Your task to perform on an android device: Do I have any events this weekend? Image 0: 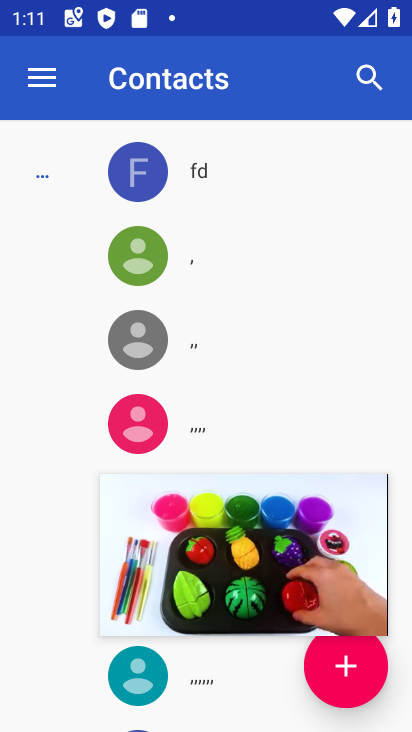
Step 0: drag from (303, 567) to (261, 704)
Your task to perform on an android device: Do I have any events this weekend? Image 1: 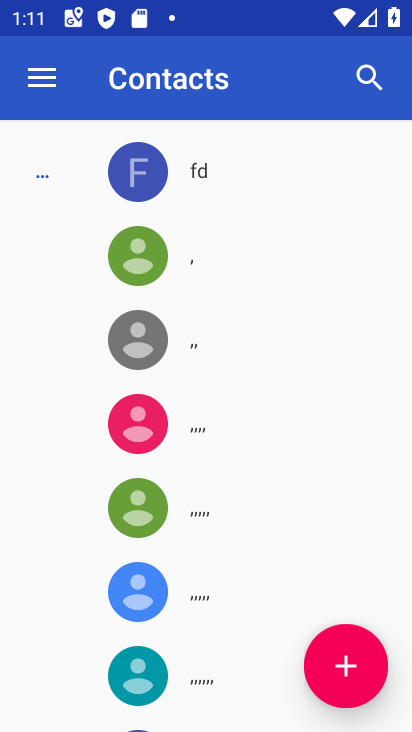
Step 1: press home button
Your task to perform on an android device: Do I have any events this weekend? Image 2: 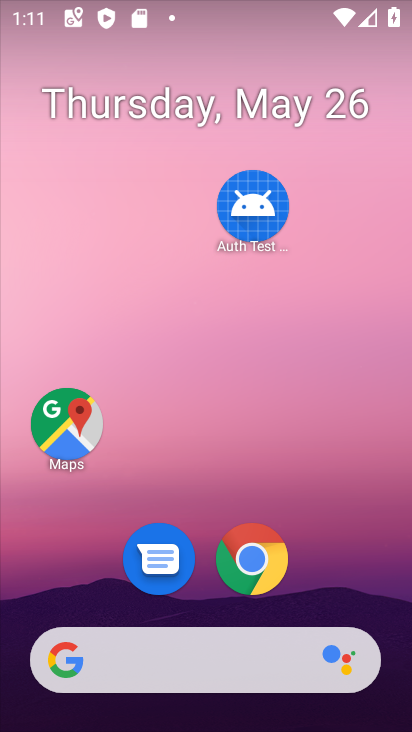
Step 2: drag from (328, 535) to (324, 145)
Your task to perform on an android device: Do I have any events this weekend? Image 3: 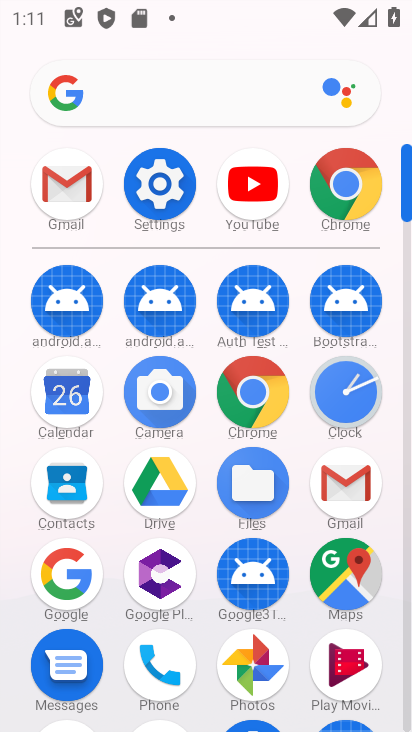
Step 3: click (75, 388)
Your task to perform on an android device: Do I have any events this weekend? Image 4: 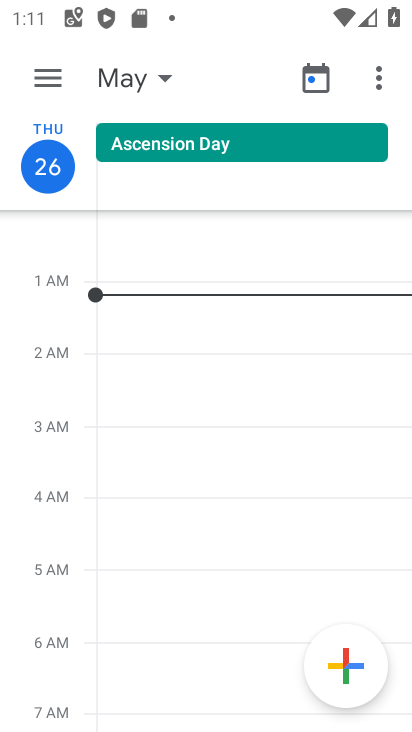
Step 4: click (58, 78)
Your task to perform on an android device: Do I have any events this weekend? Image 5: 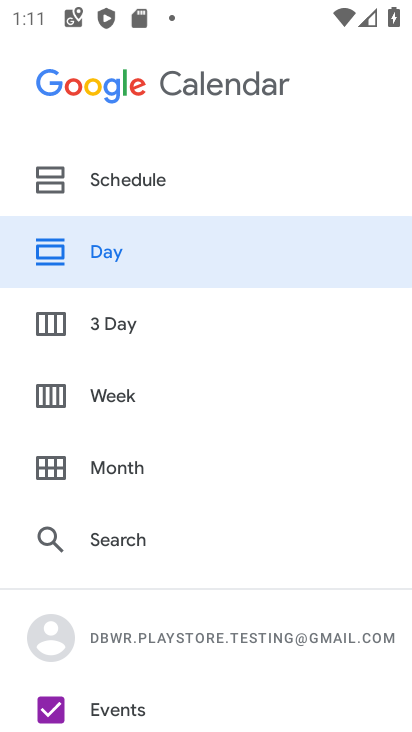
Step 5: click (130, 332)
Your task to perform on an android device: Do I have any events this weekend? Image 6: 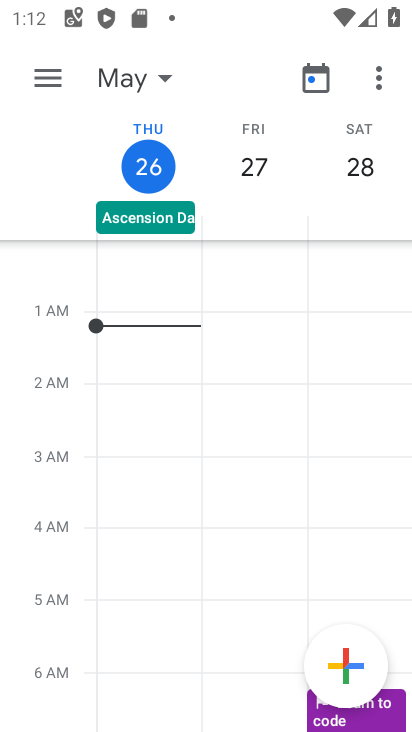
Step 6: click (146, 68)
Your task to perform on an android device: Do I have any events this weekend? Image 7: 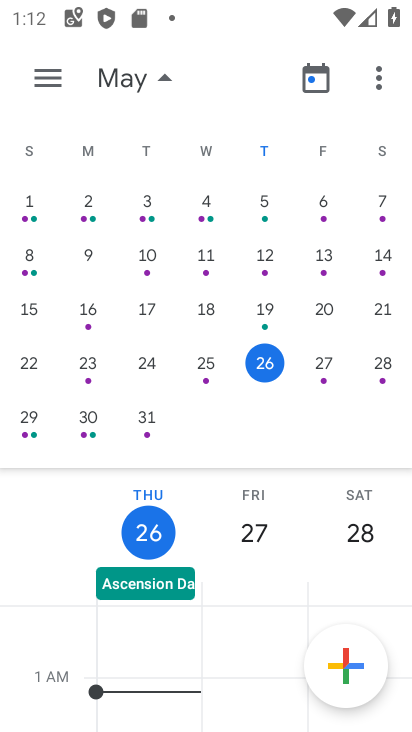
Step 7: click (328, 363)
Your task to perform on an android device: Do I have any events this weekend? Image 8: 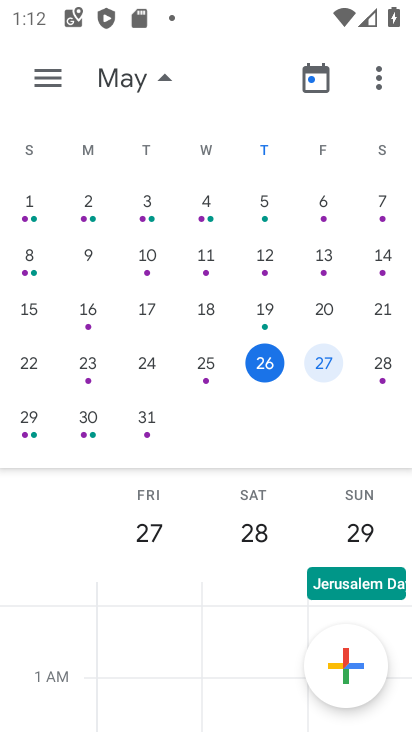
Step 8: click (119, 89)
Your task to perform on an android device: Do I have any events this weekend? Image 9: 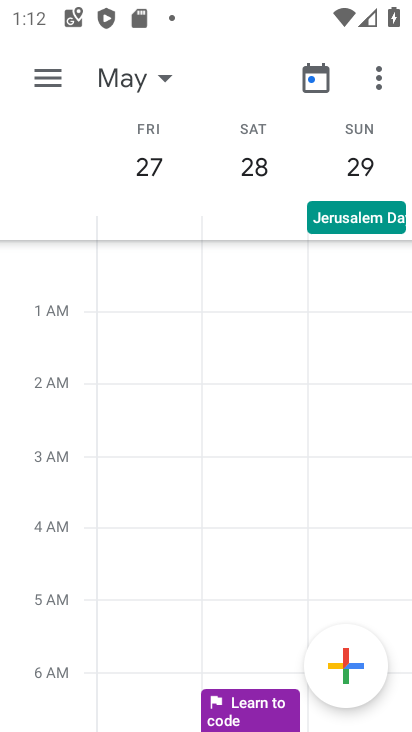
Step 9: task complete